Your task to perform on an android device: toggle pop-ups in chrome Image 0: 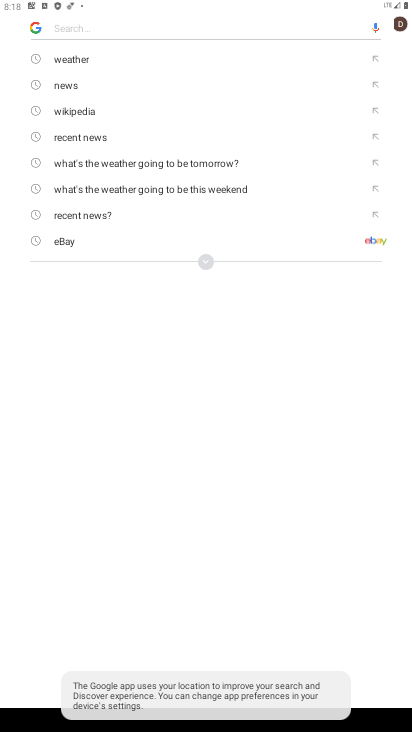
Step 0: press back button
Your task to perform on an android device: toggle pop-ups in chrome Image 1: 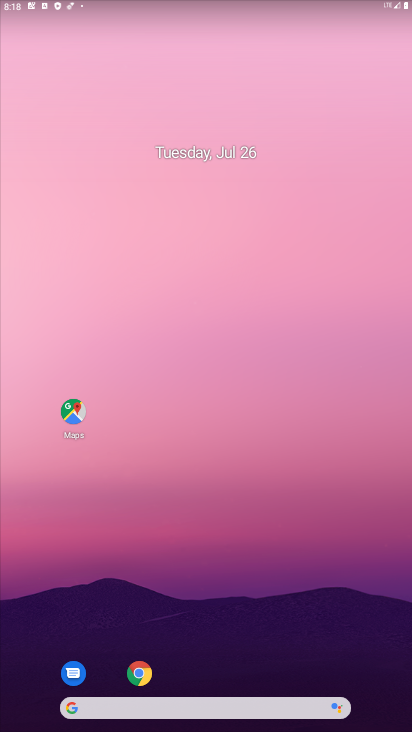
Step 1: click (138, 673)
Your task to perform on an android device: toggle pop-ups in chrome Image 2: 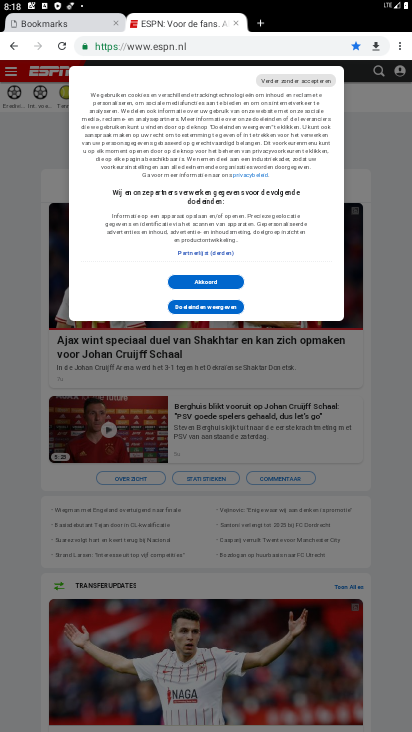
Step 2: drag from (399, 47) to (317, 306)
Your task to perform on an android device: toggle pop-ups in chrome Image 3: 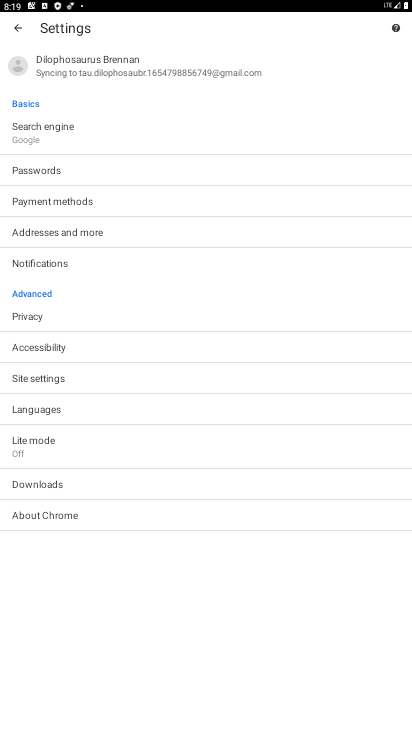
Step 3: click (42, 380)
Your task to perform on an android device: toggle pop-ups in chrome Image 4: 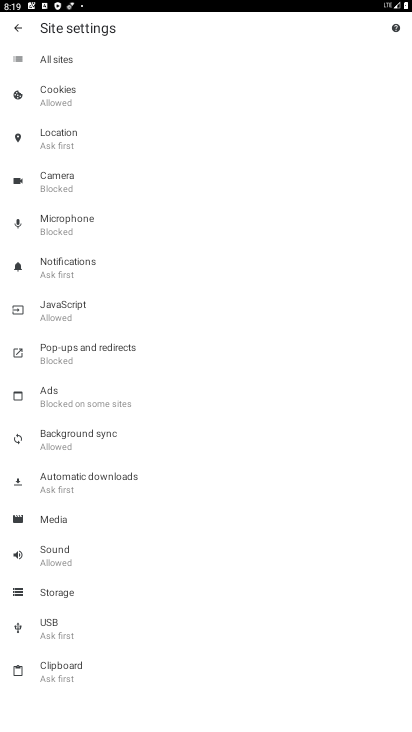
Step 4: click (61, 344)
Your task to perform on an android device: toggle pop-ups in chrome Image 5: 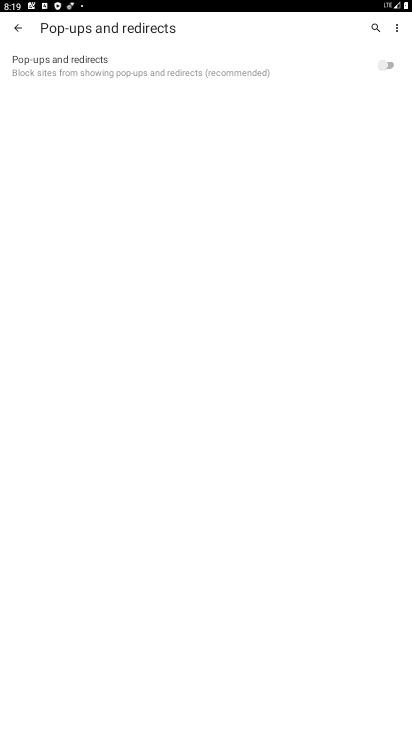
Step 5: click (385, 65)
Your task to perform on an android device: toggle pop-ups in chrome Image 6: 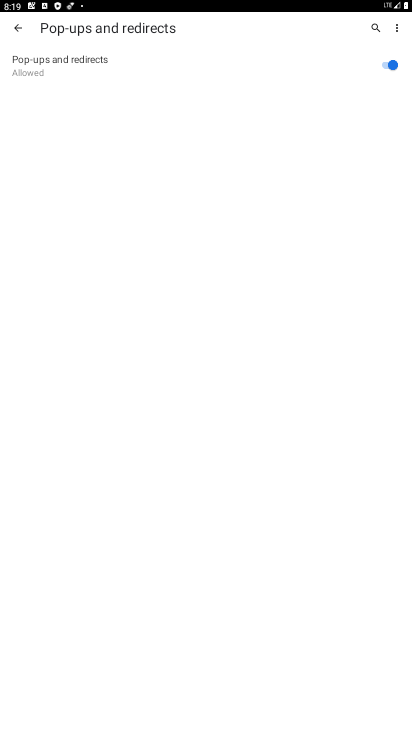
Step 6: task complete